Your task to perform on an android device: Open my contact list Image 0: 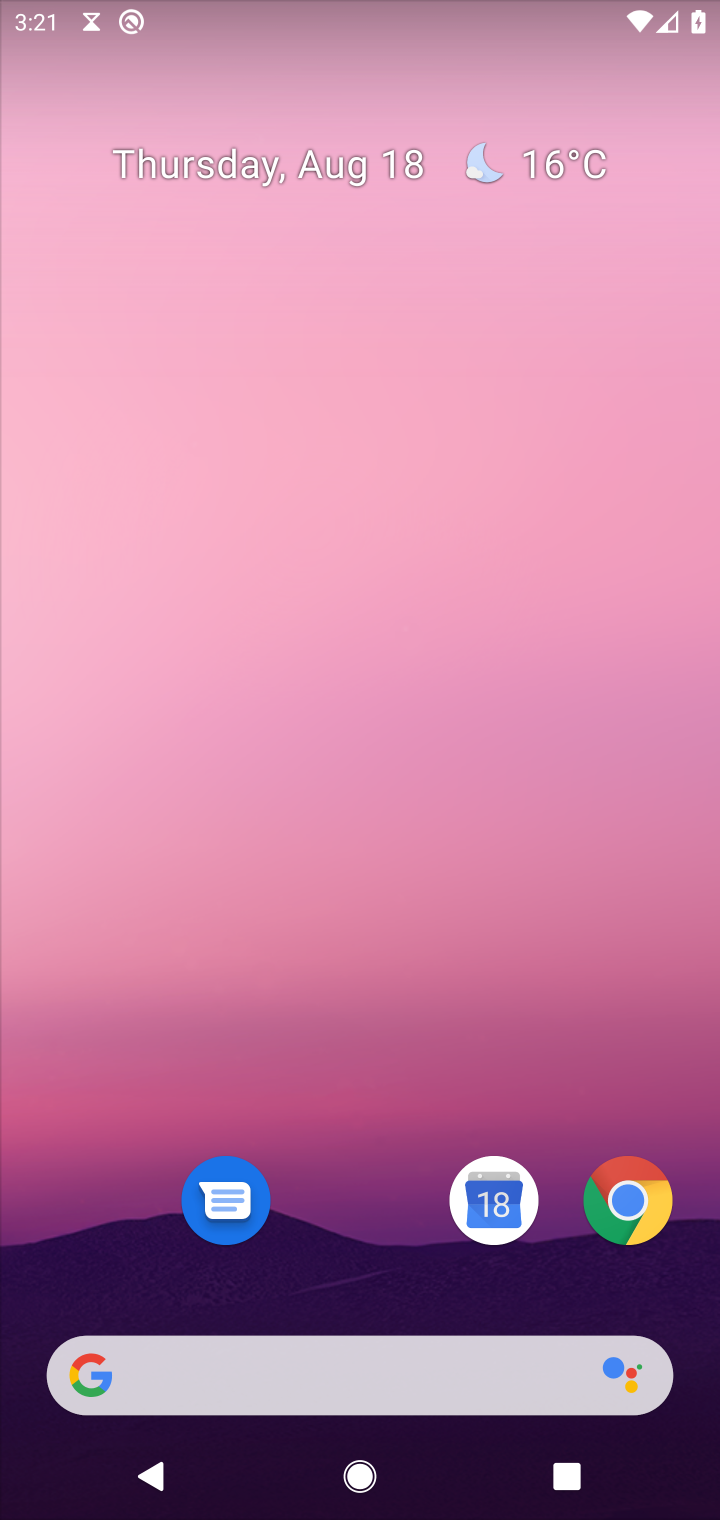
Step 0: drag from (405, 1233) to (537, 38)
Your task to perform on an android device: Open my contact list Image 1: 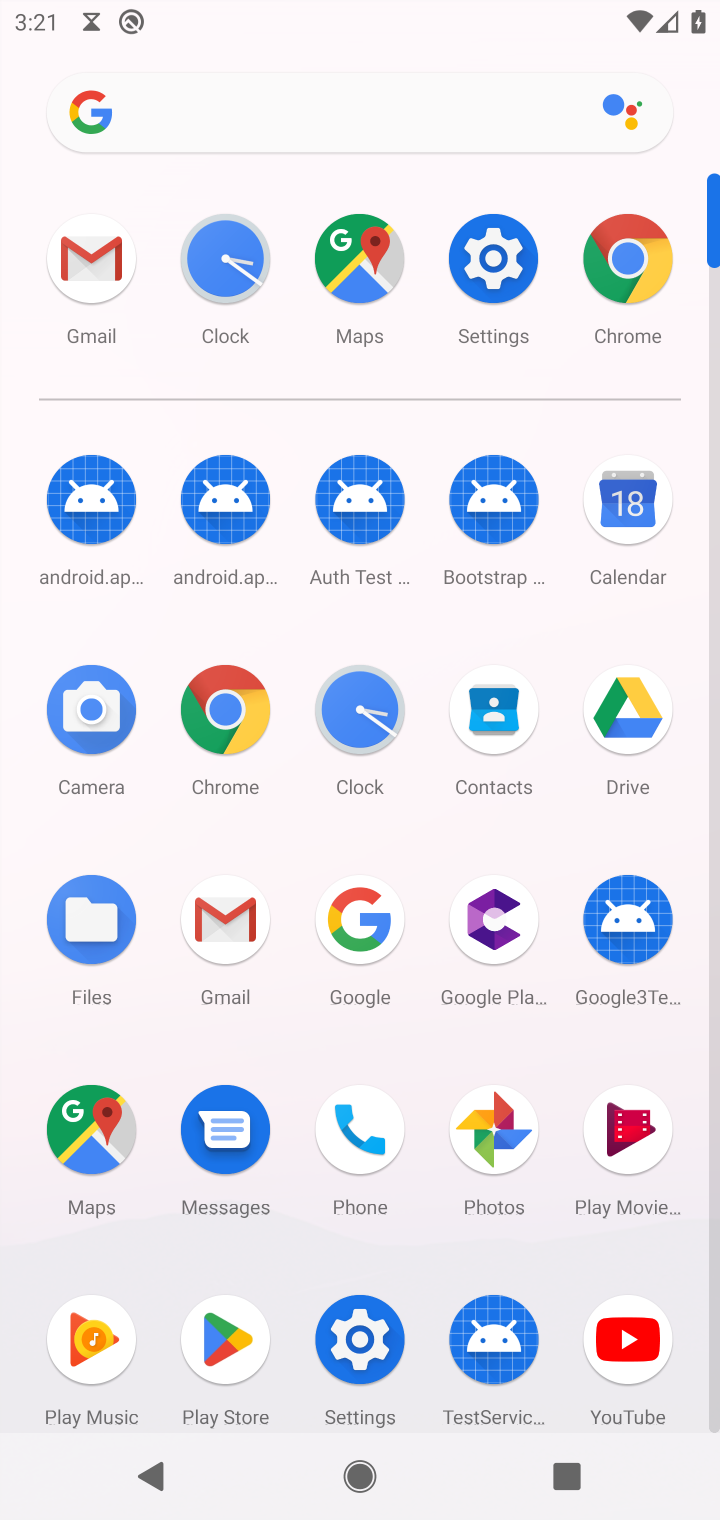
Step 1: click (510, 707)
Your task to perform on an android device: Open my contact list Image 2: 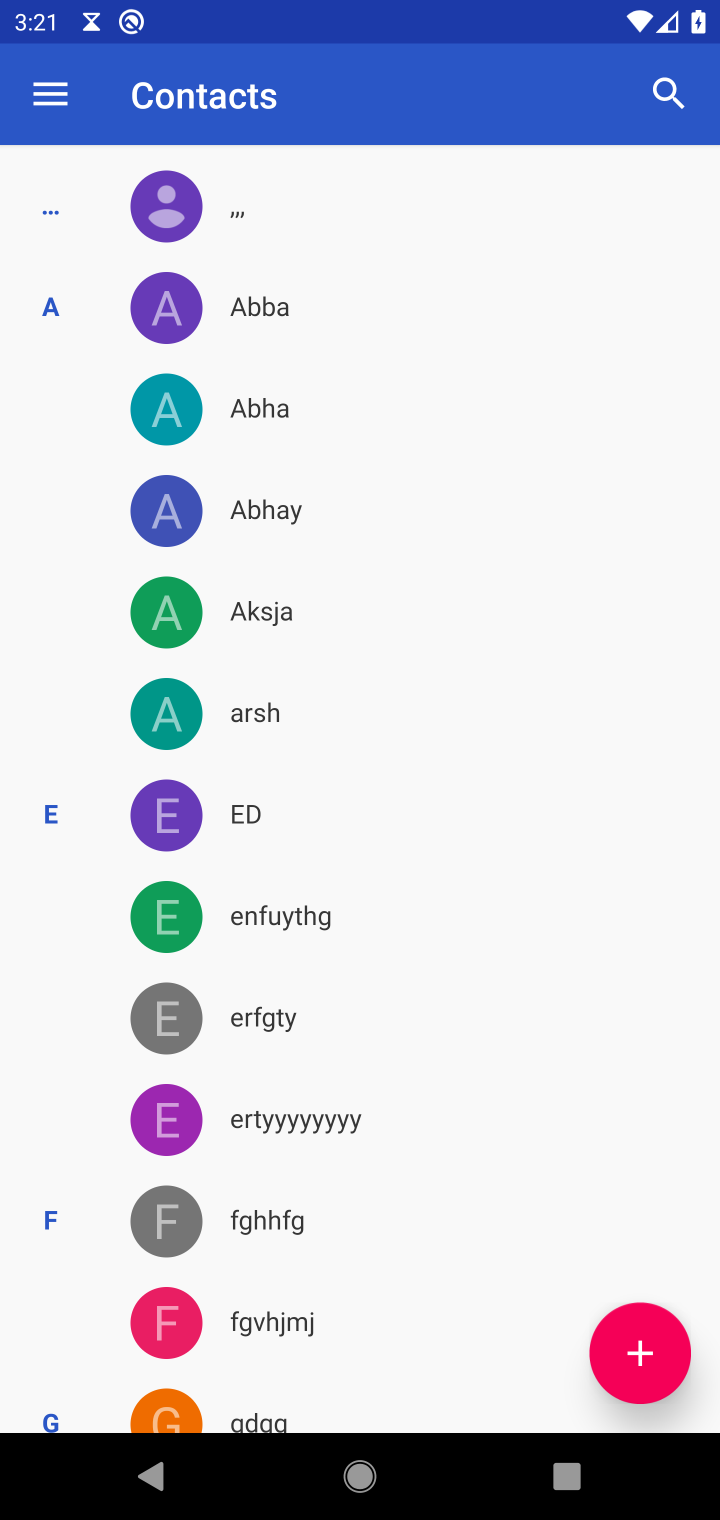
Step 2: task complete